Your task to perform on an android device: Open Chrome and go to settings Image 0: 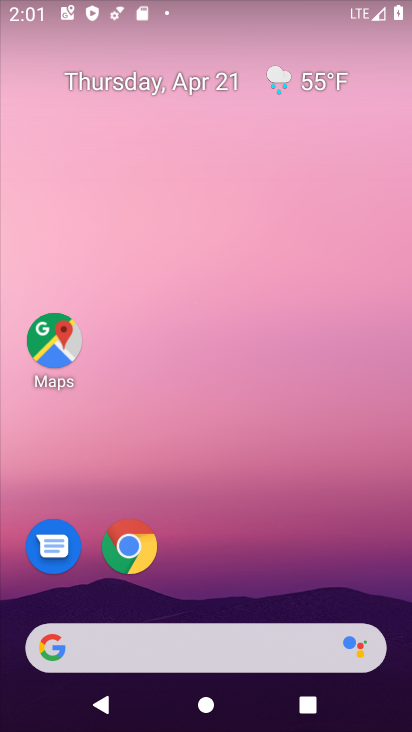
Step 0: click (132, 542)
Your task to perform on an android device: Open Chrome and go to settings Image 1: 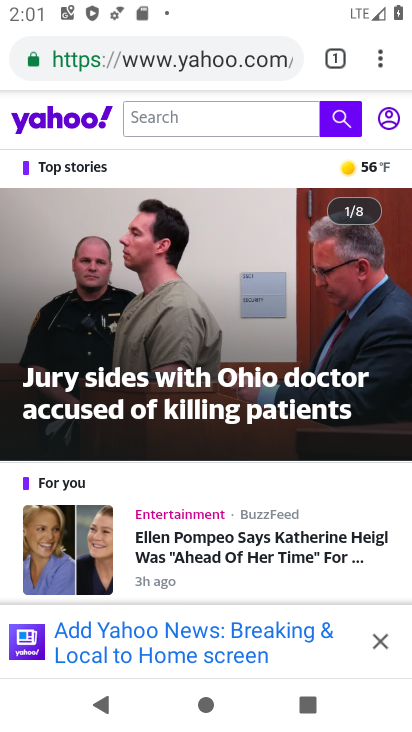
Step 1: click (386, 49)
Your task to perform on an android device: Open Chrome and go to settings Image 2: 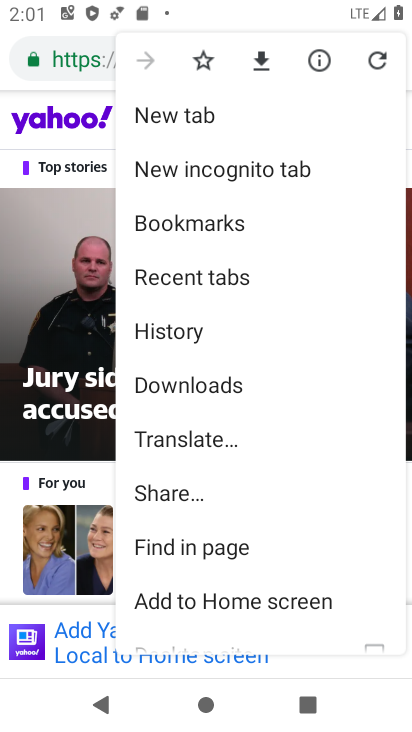
Step 2: drag from (216, 554) to (224, 148)
Your task to perform on an android device: Open Chrome and go to settings Image 3: 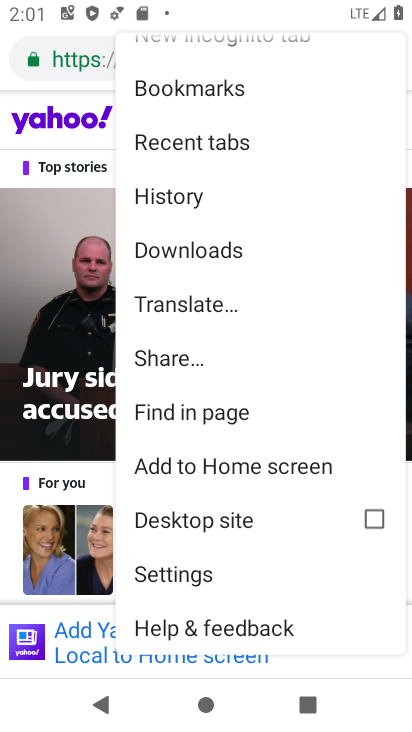
Step 3: click (181, 586)
Your task to perform on an android device: Open Chrome and go to settings Image 4: 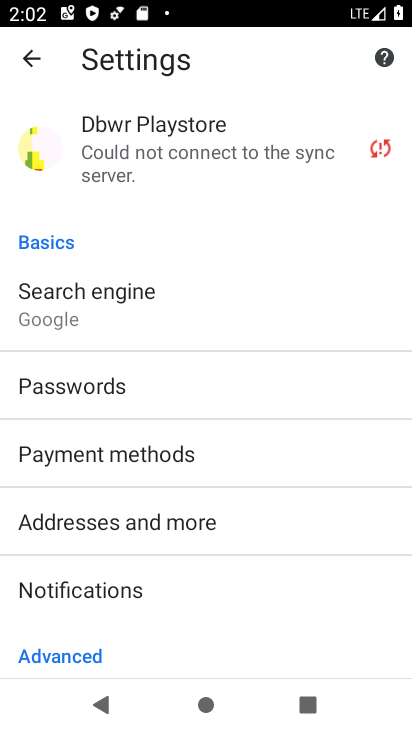
Step 4: task complete